Your task to perform on an android device: read, delete, or share a saved page in the chrome app Image 0: 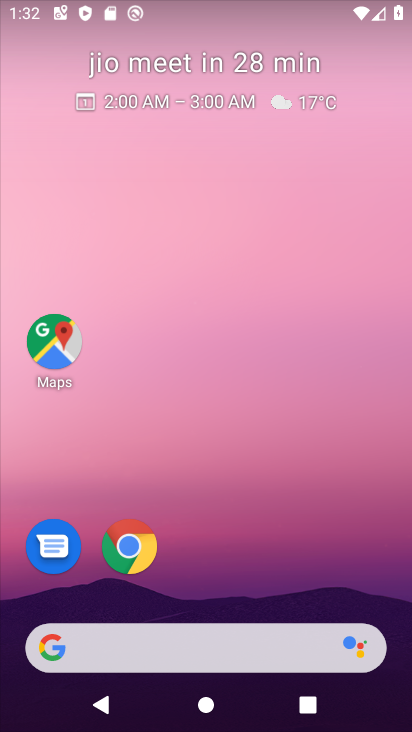
Step 0: drag from (282, 562) to (302, 271)
Your task to perform on an android device: read, delete, or share a saved page in the chrome app Image 1: 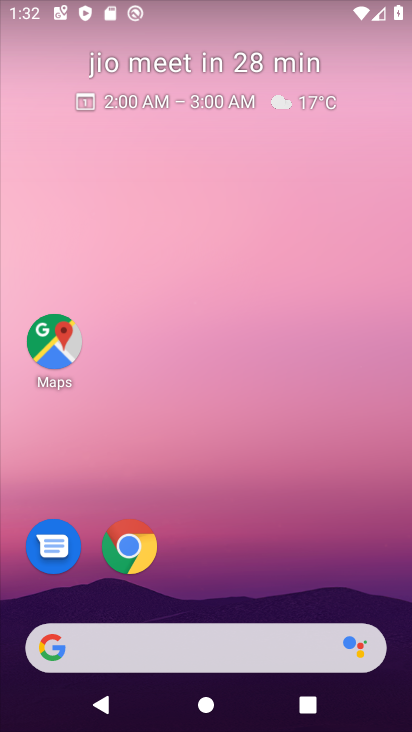
Step 1: click (155, 536)
Your task to perform on an android device: read, delete, or share a saved page in the chrome app Image 2: 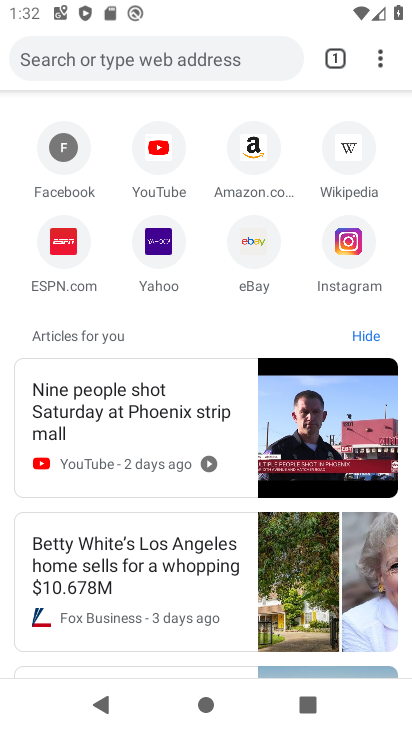
Step 2: click (393, 56)
Your task to perform on an android device: read, delete, or share a saved page in the chrome app Image 3: 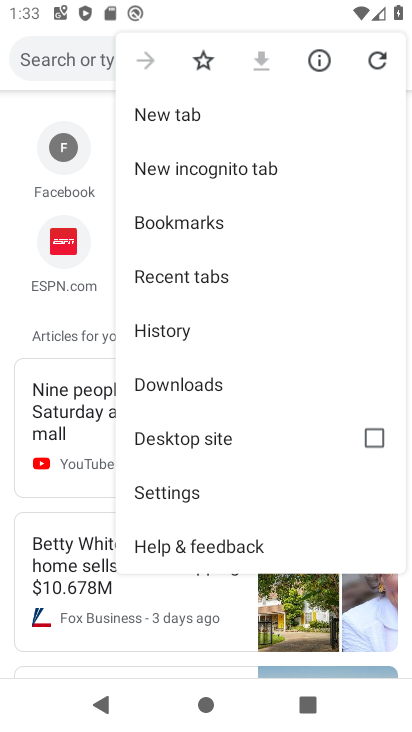
Step 3: click (232, 399)
Your task to perform on an android device: read, delete, or share a saved page in the chrome app Image 4: 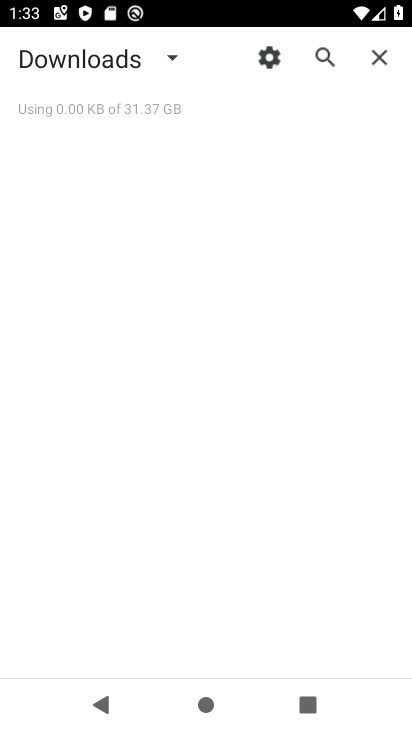
Step 4: task complete